Your task to perform on an android device: check google app version Image 0: 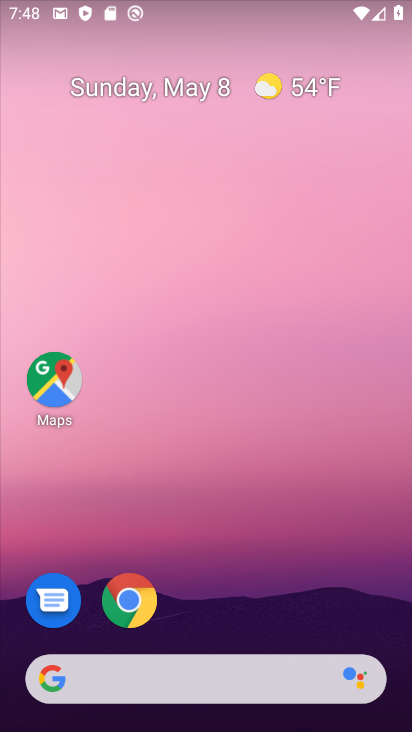
Step 0: drag from (216, 536) to (311, 228)
Your task to perform on an android device: check google app version Image 1: 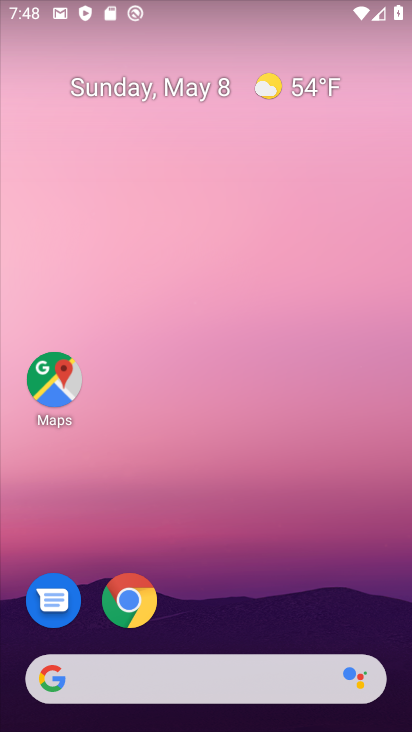
Step 1: drag from (273, 607) to (330, 270)
Your task to perform on an android device: check google app version Image 2: 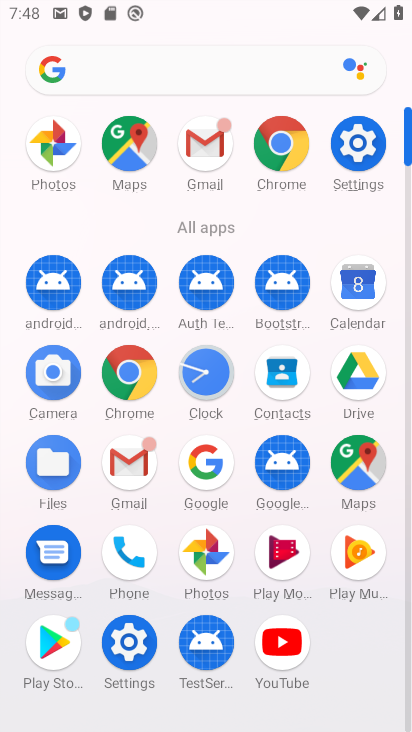
Step 2: click (220, 467)
Your task to perform on an android device: check google app version Image 3: 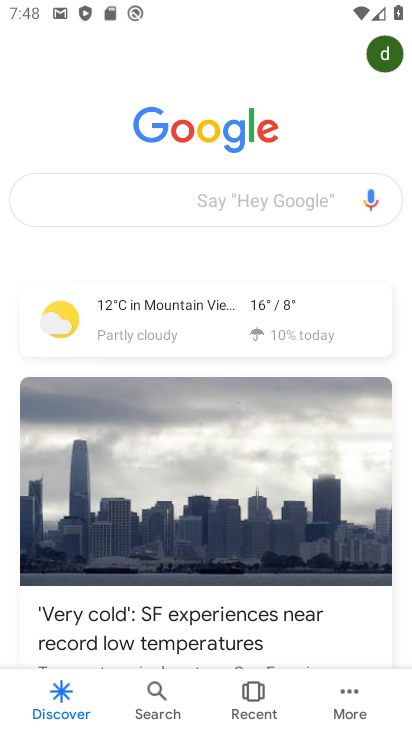
Step 3: click (351, 700)
Your task to perform on an android device: check google app version Image 4: 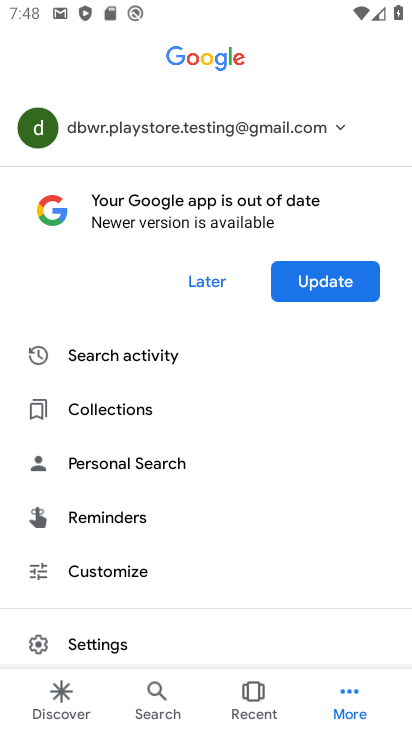
Step 4: click (221, 639)
Your task to perform on an android device: check google app version Image 5: 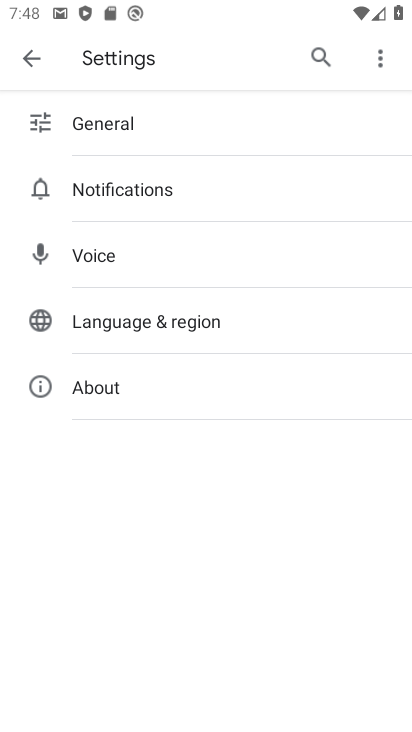
Step 5: click (178, 393)
Your task to perform on an android device: check google app version Image 6: 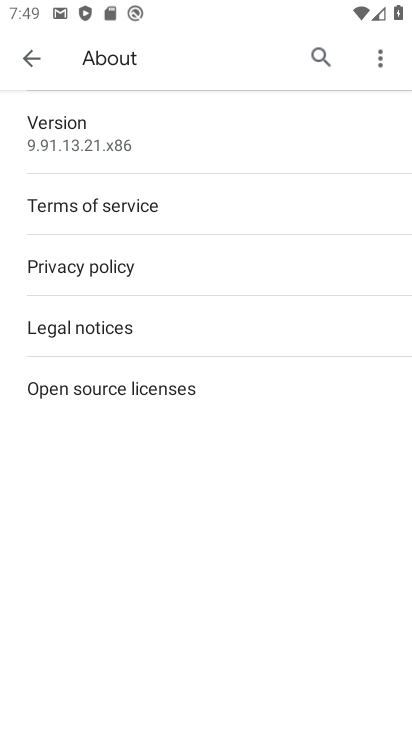
Step 6: click (239, 162)
Your task to perform on an android device: check google app version Image 7: 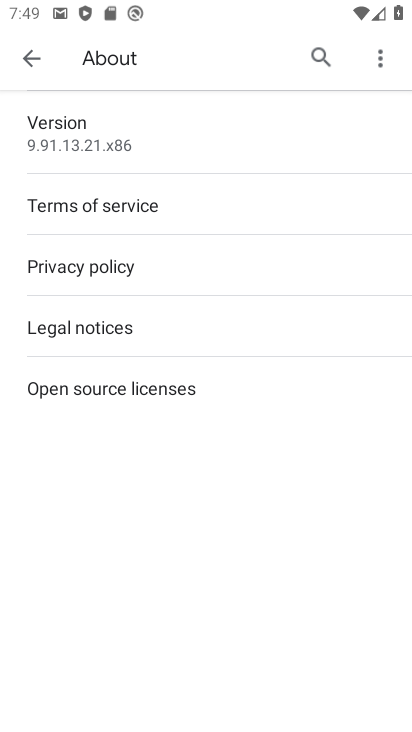
Step 7: task complete